Your task to perform on an android device: toggle location history Image 0: 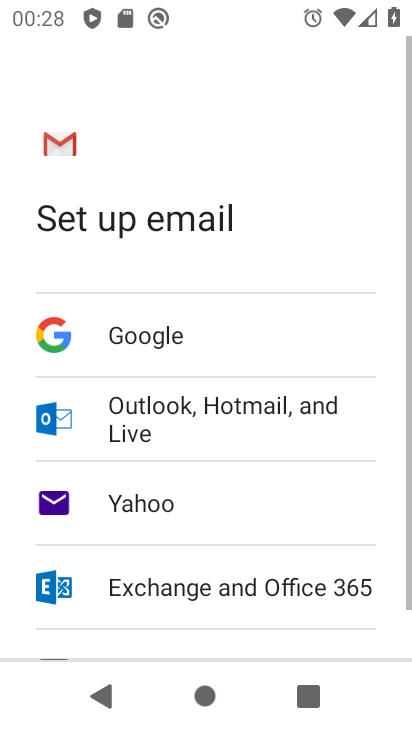
Step 0: press home button
Your task to perform on an android device: toggle location history Image 1: 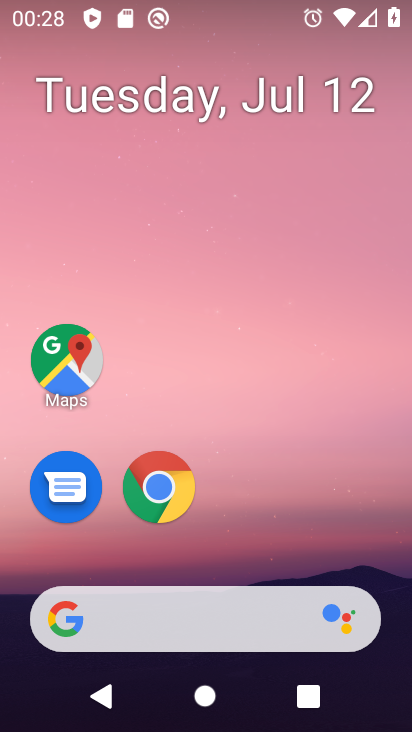
Step 1: drag from (375, 554) to (355, 182)
Your task to perform on an android device: toggle location history Image 2: 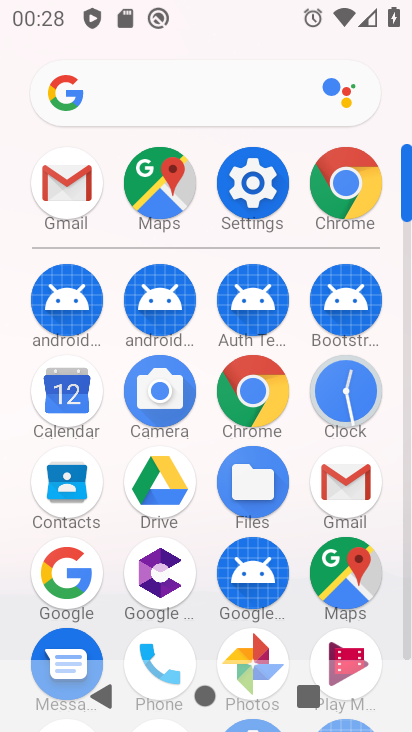
Step 2: click (233, 184)
Your task to perform on an android device: toggle location history Image 3: 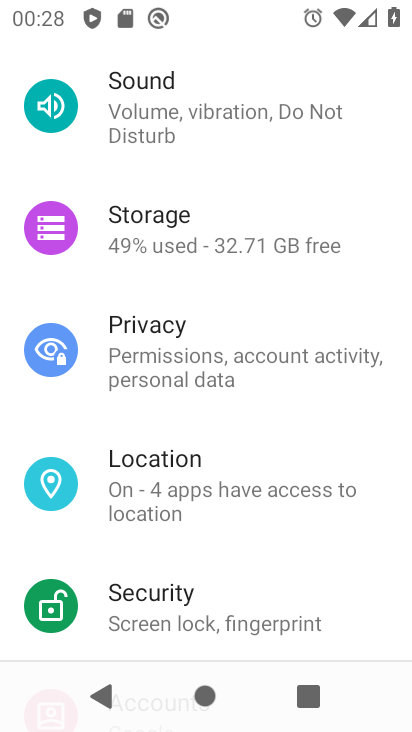
Step 3: drag from (349, 563) to (345, 375)
Your task to perform on an android device: toggle location history Image 4: 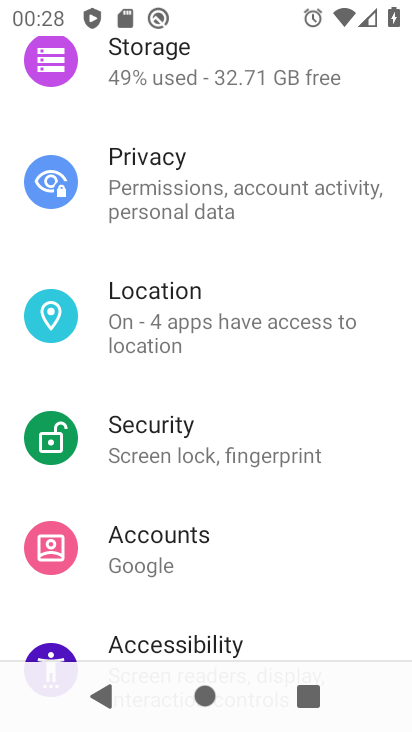
Step 4: drag from (355, 541) to (370, 331)
Your task to perform on an android device: toggle location history Image 5: 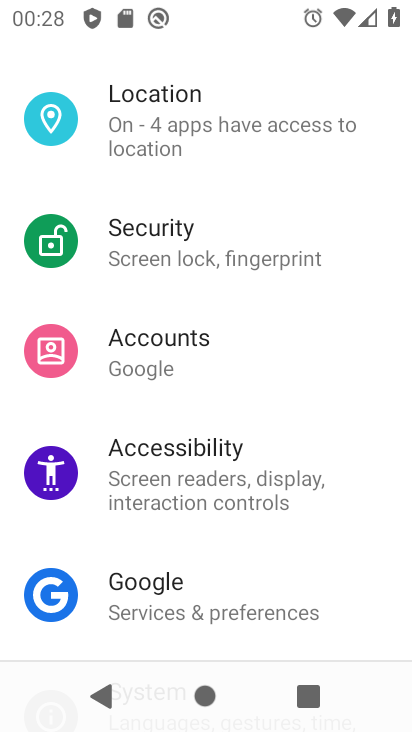
Step 5: drag from (362, 560) to (363, 338)
Your task to perform on an android device: toggle location history Image 6: 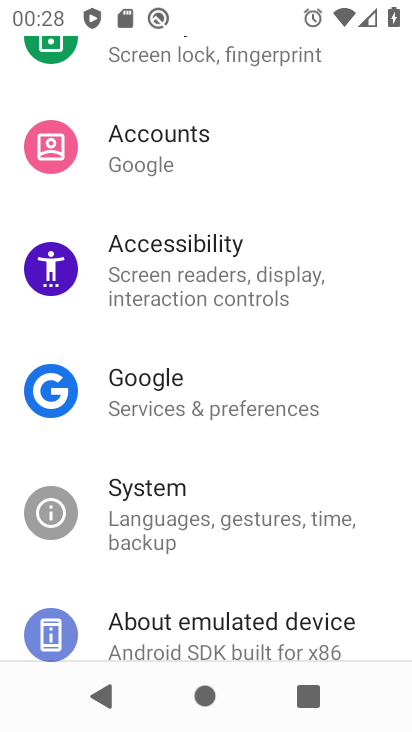
Step 6: drag from (363, 523) to (382, 385)
Your task to perform on an android device: toggle location history Image 7: 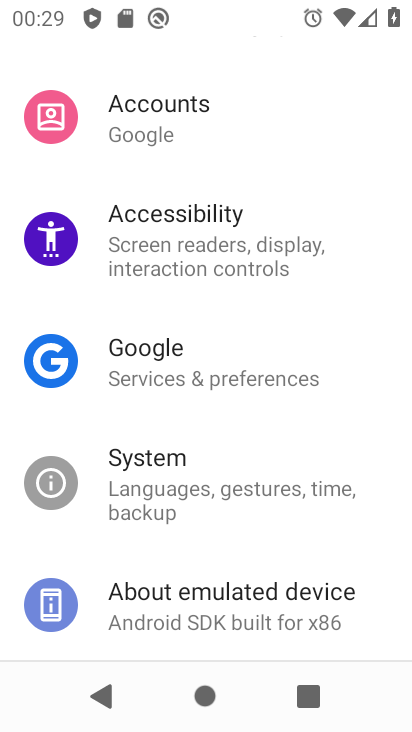
Step 7: drag from (353, 354) to (366, 472)
Your task to perform on an android device: toggle location history Image 8: 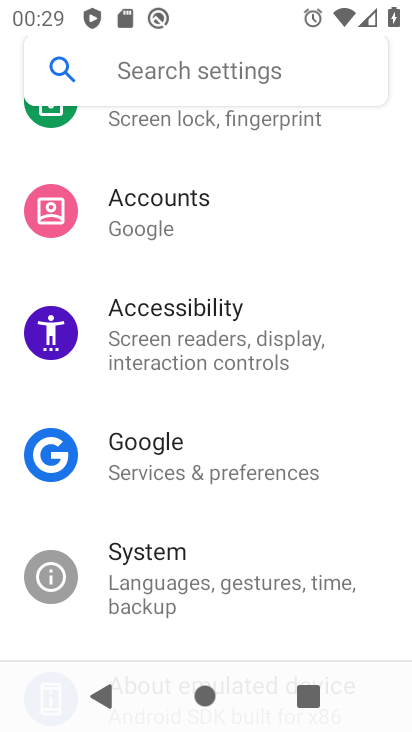
Step 8: drag from (363, 352) to (362, 477)
Your task to perform on an android device: toggle location history Image 9: 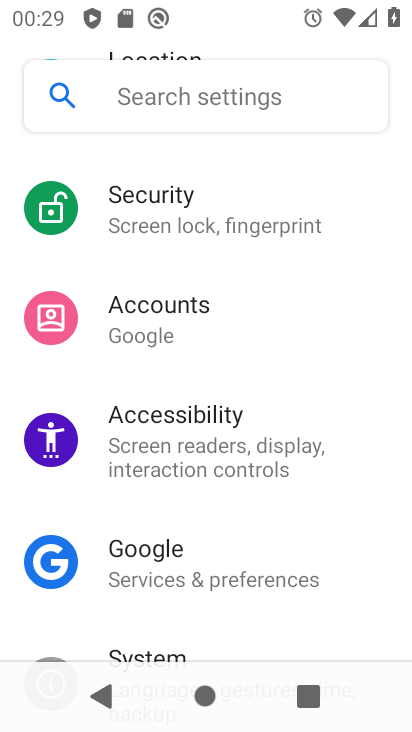
Step 9: drag from (343, 325) to (352, 488)
Your task to perform on an android device: toggle location history Image 10: 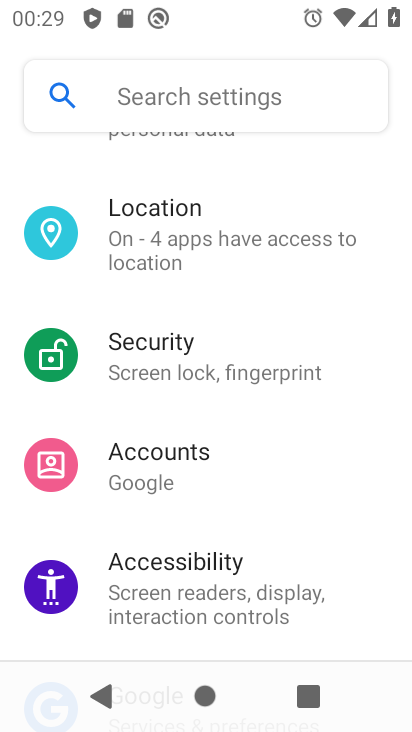
Step 10: drag from (358, 339) to (356, 473)
Your task to perform on an android device: toggle location history Image 11: 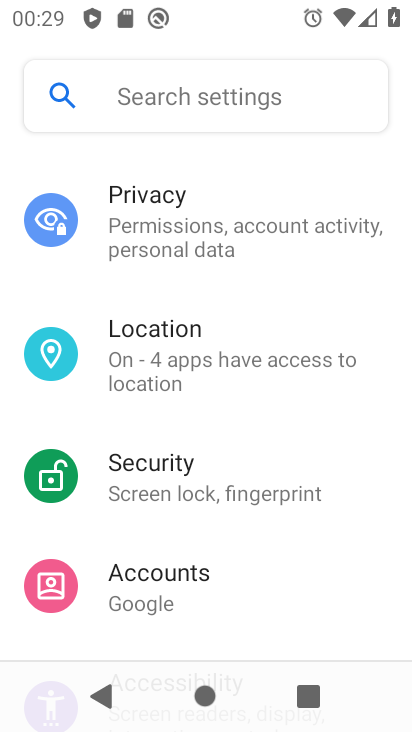
Step 11: drag from (366, 315) to (369, 478)
Your task to perform on an android device: toggle location history Image 12: 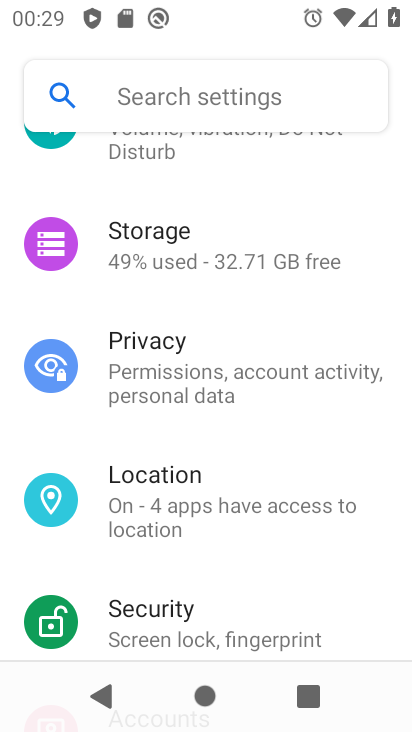
Step 12: drag from (376, 289) to (376, 390)
Your task to perform on an android device: toggle location history Image 13: 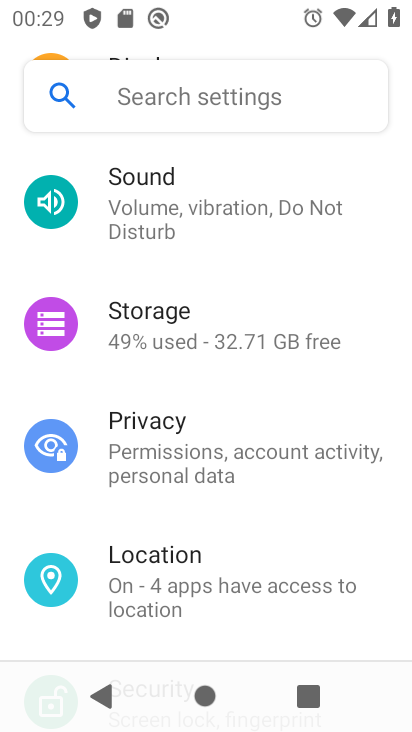
Step 13: drag from (367, 291) to (362, 441)
Your task to perform on an android device: toggle location history Image 14: 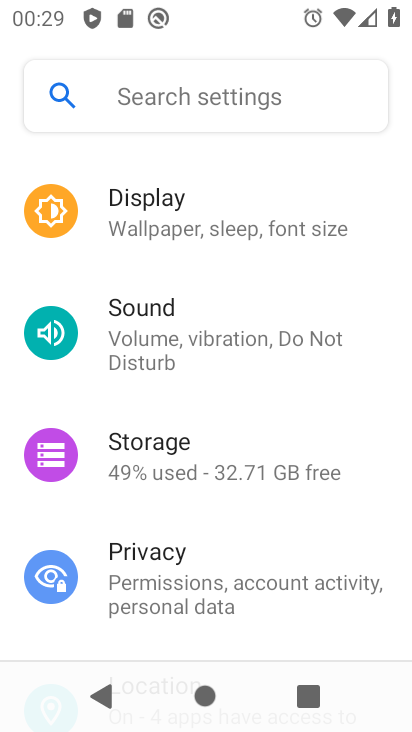
Step 14: drag from (365, 300) to (368, 501)
Your task to perform on an android device: toggle location history Image 15: 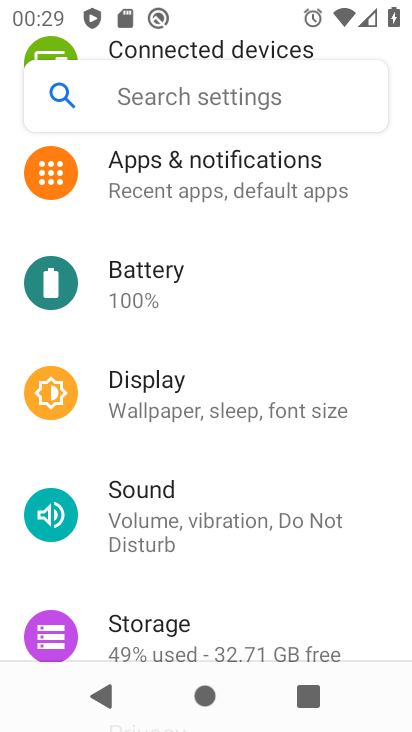
Step 15: drag from (357, 342) to (364, 470)
Your task to perform on an android device: toggle location history Image 16: 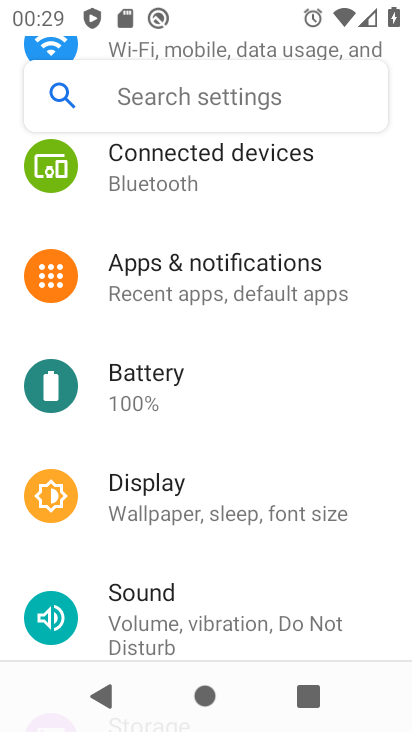
Step 16: drag from (363, 301) to (368, 447)
Your task to perform on an android device: toggle location history Image 17: 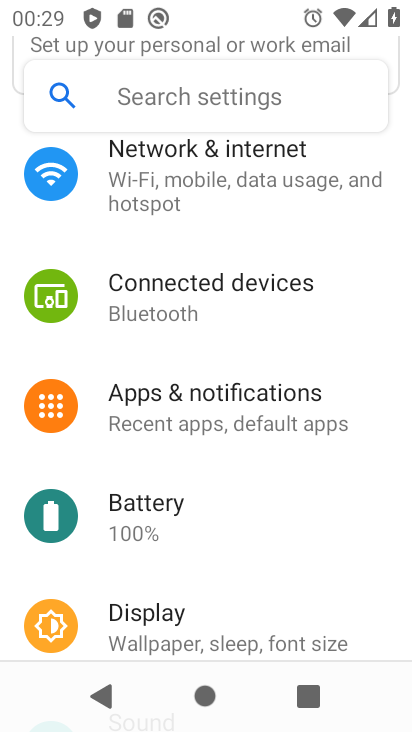
Step 17: drag from (351, 278) to (365, 469)
Your task to perform on an android device: toggle location history Image 18: 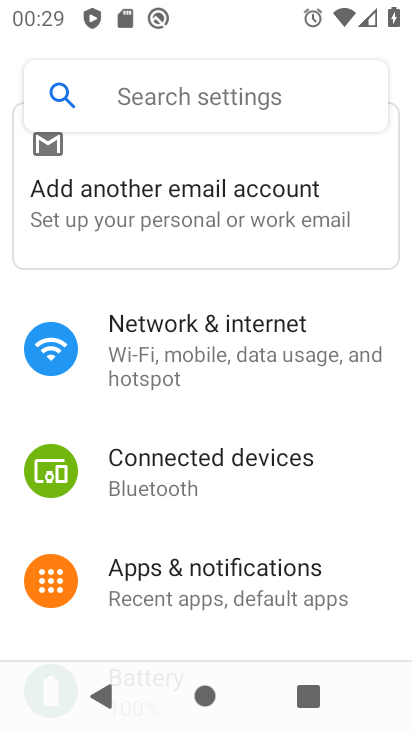
Step 18: drag from (362, 544) to (352, 364)
Your task to perform on an android device: toggle location history Image 19: 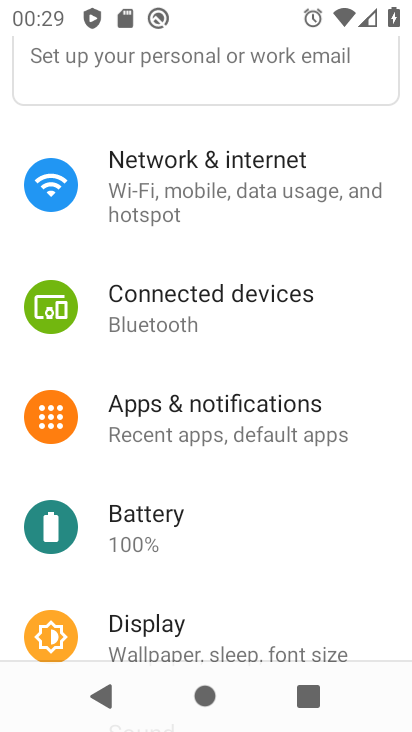
Step 19: drag from (365, 502) to (367, 381)
Your task to perform on an android device: toggle location history Image 20: 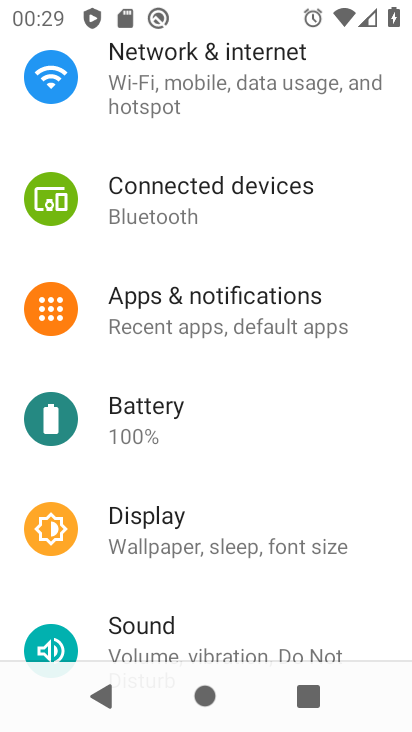
Step 20: drag from (349, 576) to (362, 409)
Your task to perform on an android device: toggle location history Image 21: 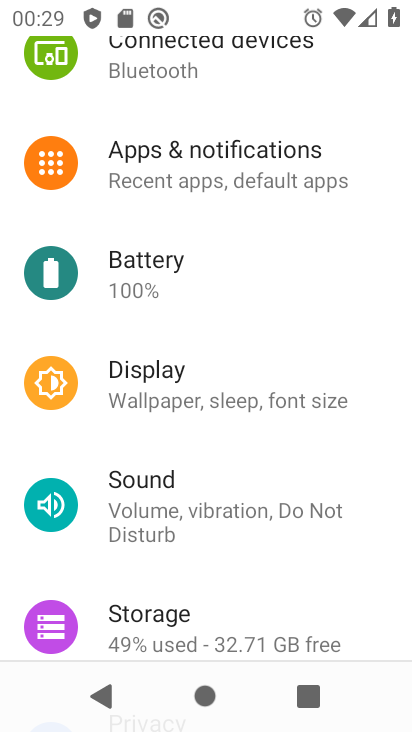
Step 21: drag from (354, 552) to (371, 400)
Your task to perform on an android device: toggle location history Image 22: 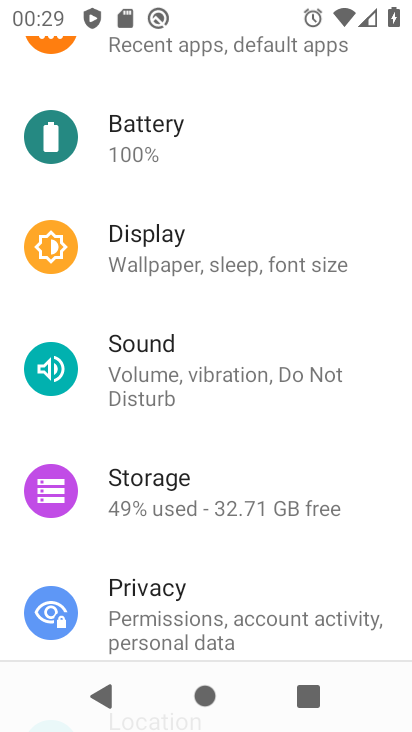
Step 22: drag from (348, 560) to (354, 410)
Your task to perform on an android device: toggle location history Image 23: 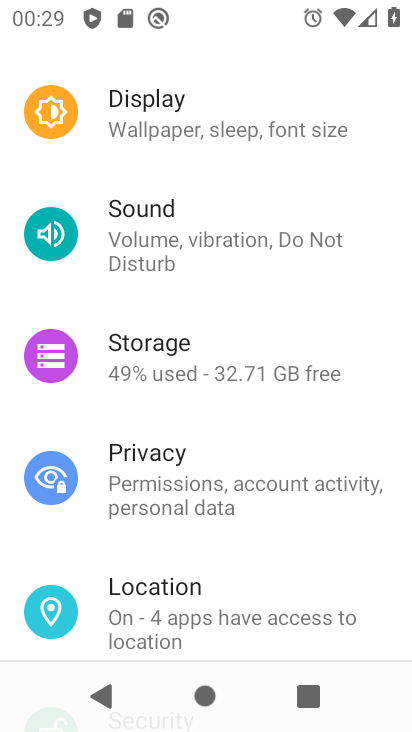
Step 23: drag from (344, 536) to (346, 397)
Your task to perform on an android device: toggle location history Image 24: 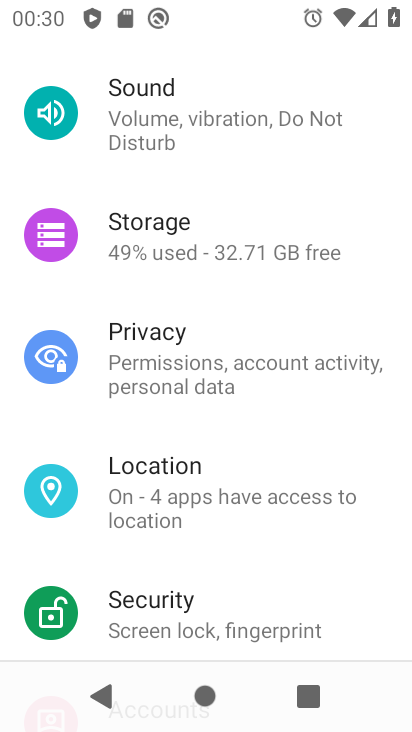
Step 24: click (220, 494)
Your task to perform on an android device: toggle location history Image 25: 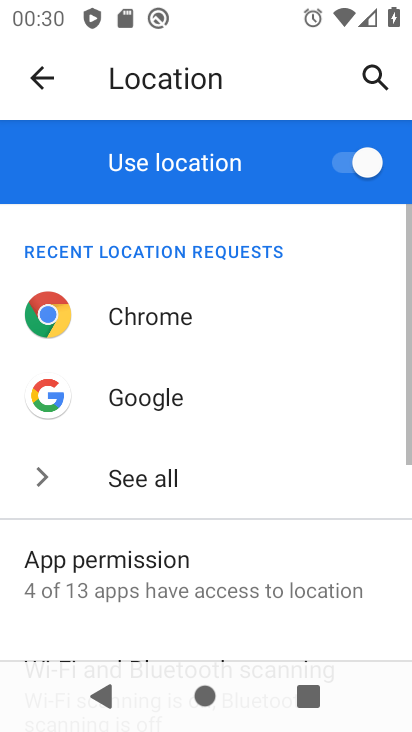
Step 25: drag from (331, 597) to (324, 449)
Your task to perform on an android device: toggle location history Image 26: 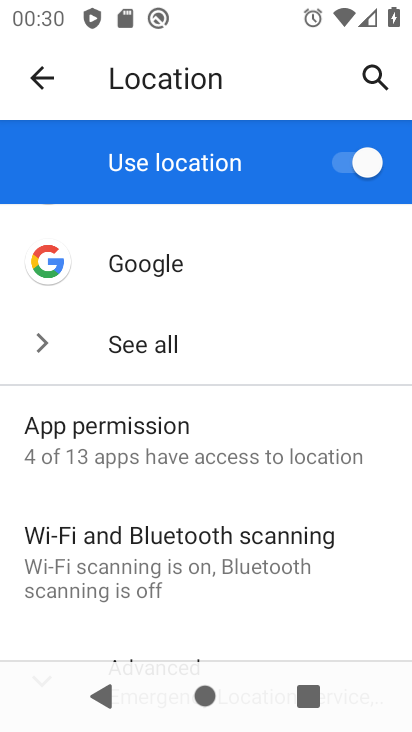
Step 26: drag from (332, 605) to (333, 452)
Your task to perform on an android device: toggle location history Image 27: 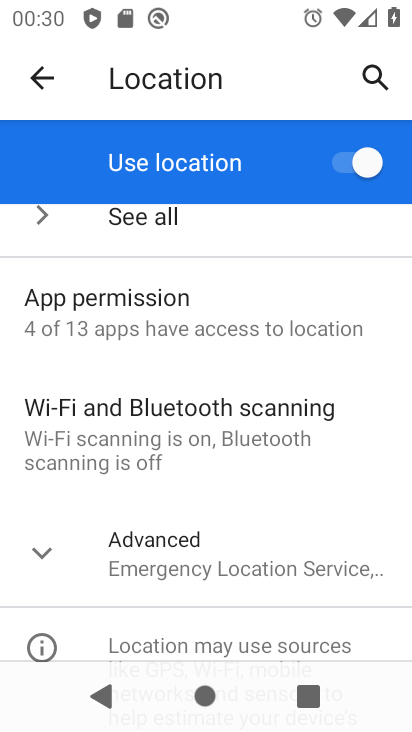
Step 27: click (234, 567)
Your task to perform on an android device: toggle location history Image 28: 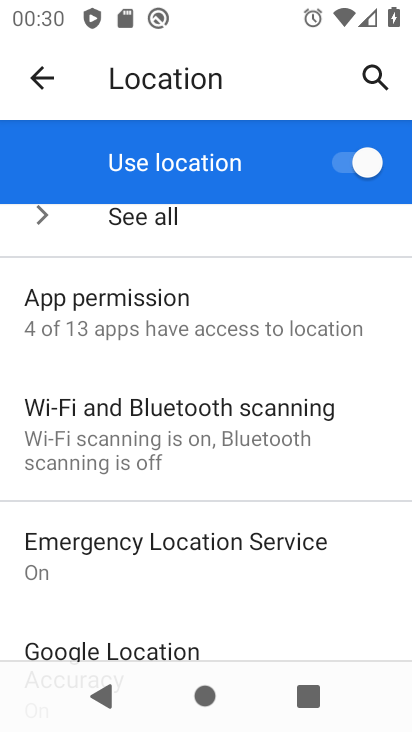
Step 28: drag from (282, 628) to (282, 505)
Your task to perform on an android device: toggle location history Image 29: 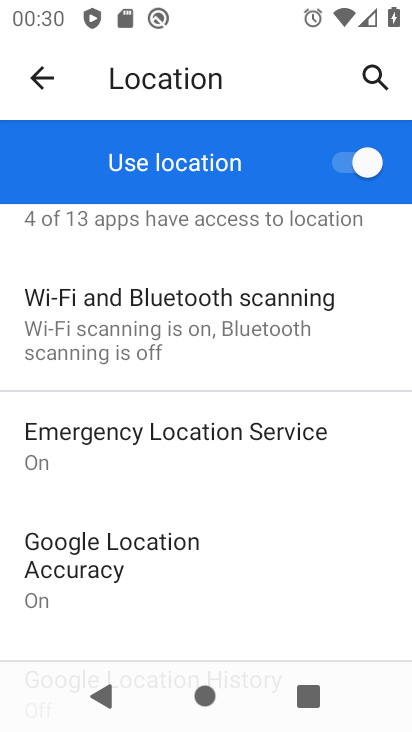
Step 29: drag from (262, 593) to (277, 454)
Your task to perform on an android device: toggle location history Image 30: 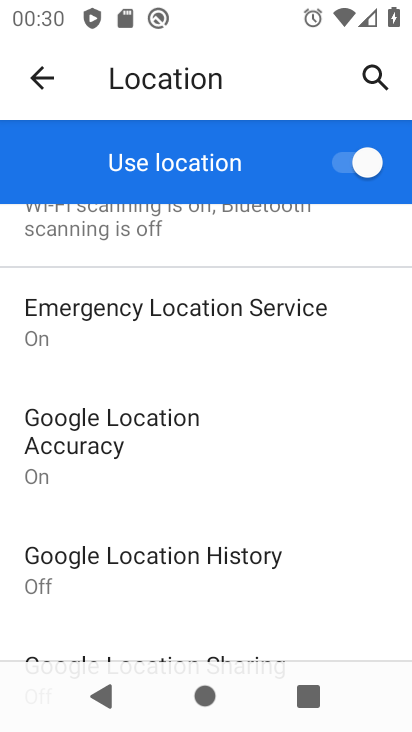
Step 30: drag from (299, 621) to (312, 508)
Your task to perform on an android device: toggle location history Image 31: 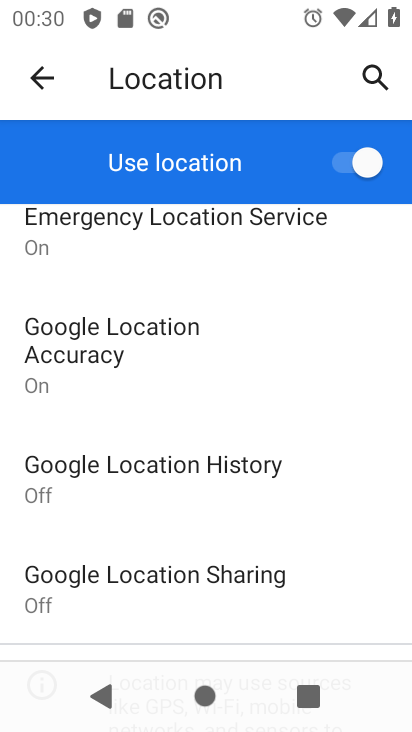
Step 31: drag from (329, 620) to (334, 492)
Your task to perform on an android device: toggle location history Image 32: 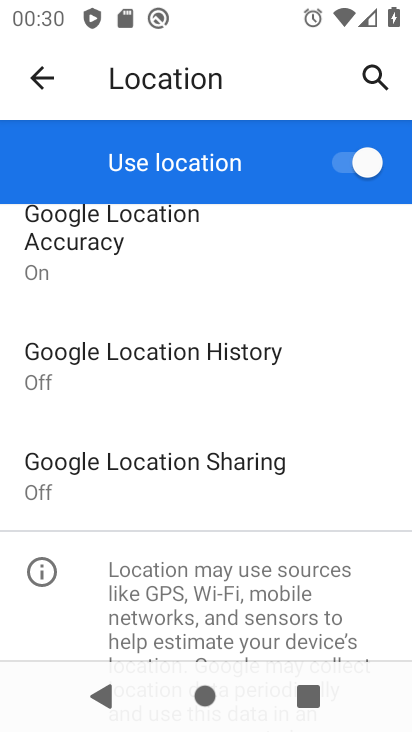
Step 32: click (163, 376)
Your task to perform on an android device: toggle location history Image 33: 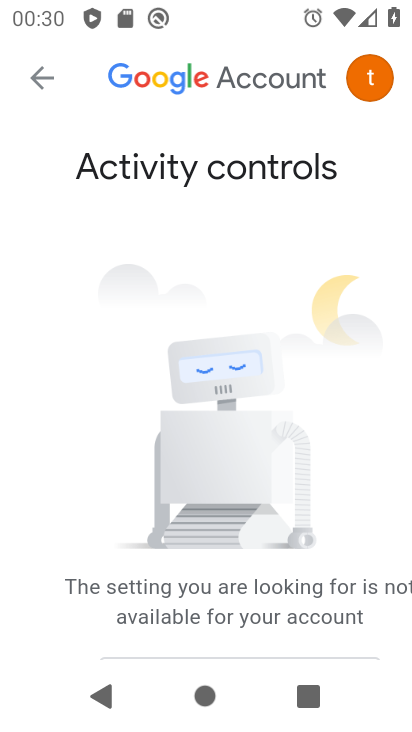
Step 33: task complete